Your task to perform on an android device: Go to network settings Image 0: 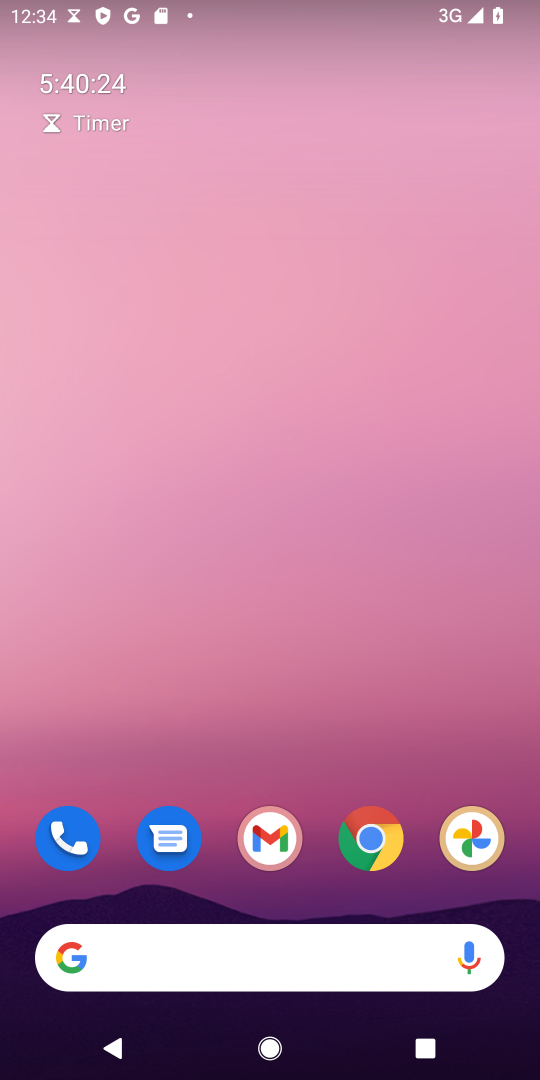
Step 0: drag from (312, 712) to (252, 2)
Your task to perform on an android device: Go to network settings Image 1: 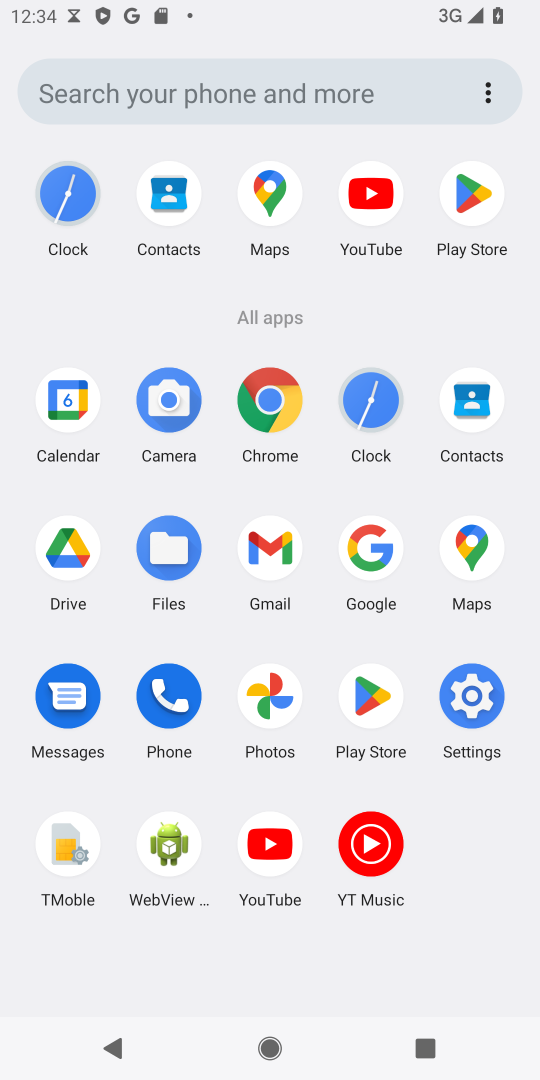
Step 1: click (460, 689)
Your task to perform on an android device: Go to network settings Image 2: 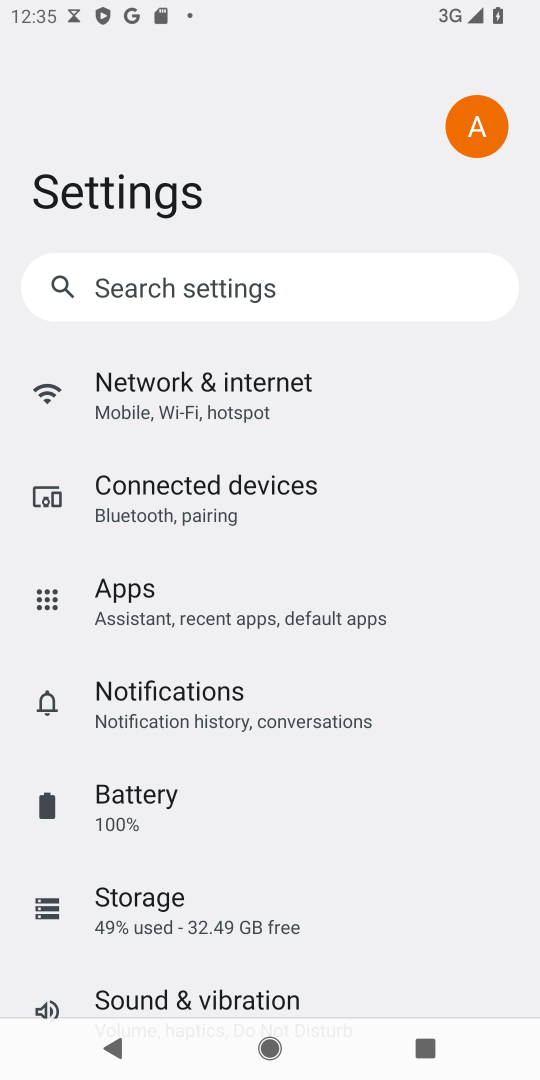
Step 2: click (267, 417)
Your task to perform on an android device: Go to network settings Image 3: 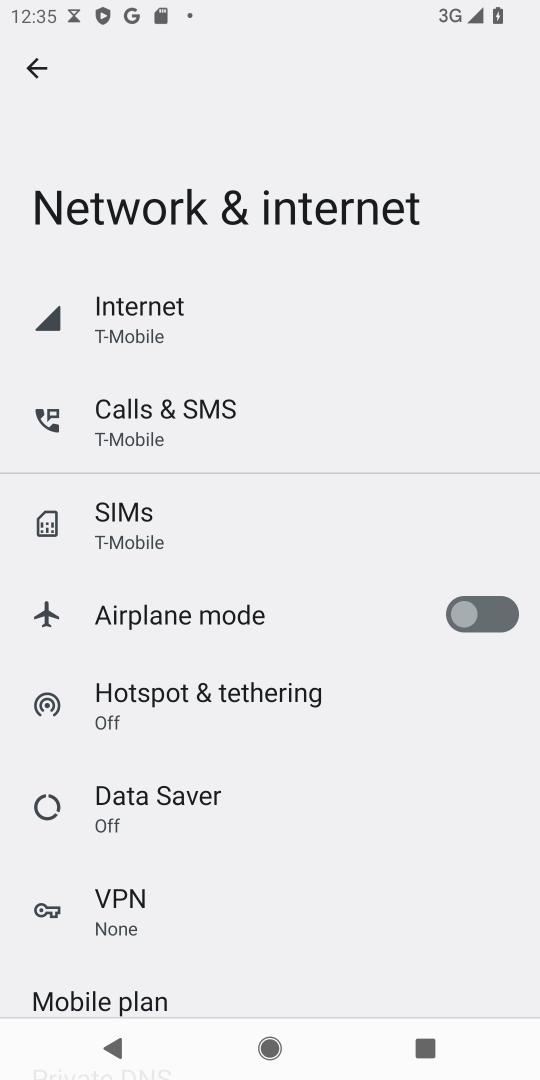
Step 3: task complete